Your task to perform on an android device: Open the calendar and show me this week's events? Image 0: 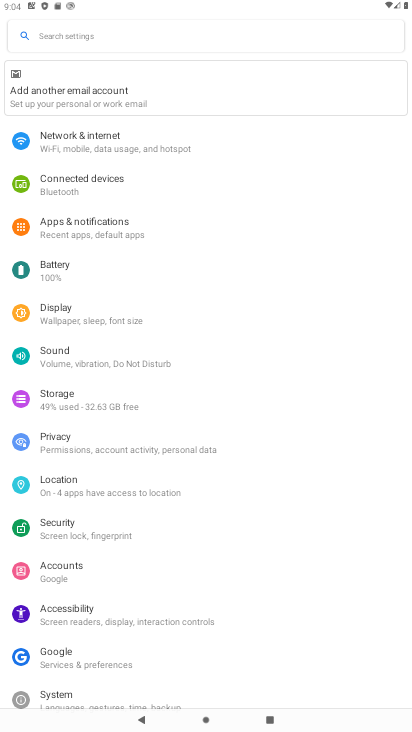
Step 0: drag from (157, 604) to (281, 214)
Your task to perform on an android device: Open the calendar and show me this week's events? Image 1: 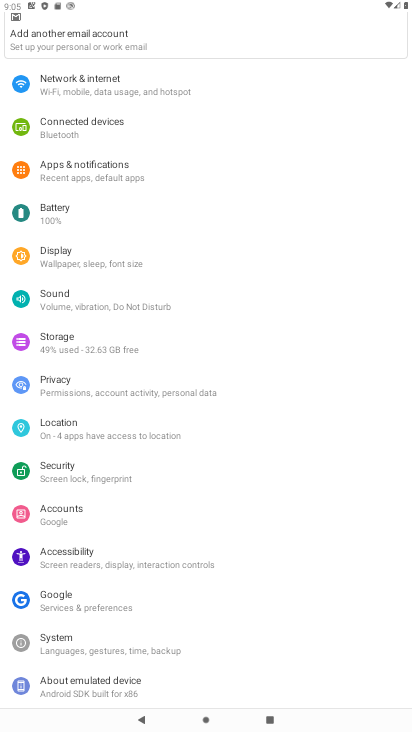
Step 1: press home button
Your task to perform on an android device: Open the calendar and show me this week's events? Image 2: 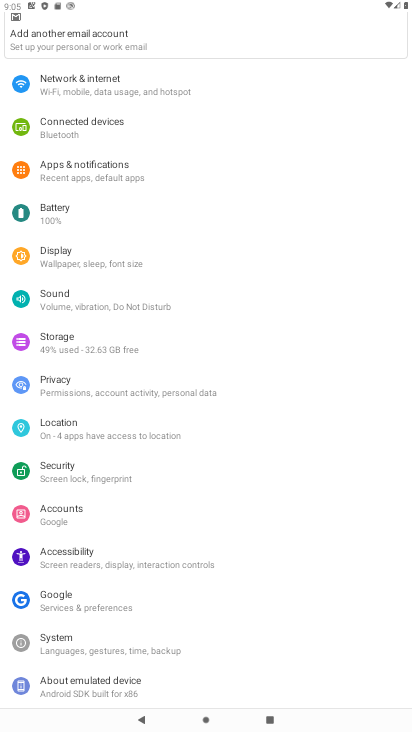
Step 2: press home button
Your task to perform on an android device: Open the calendar and show me this week's events? Image 3: 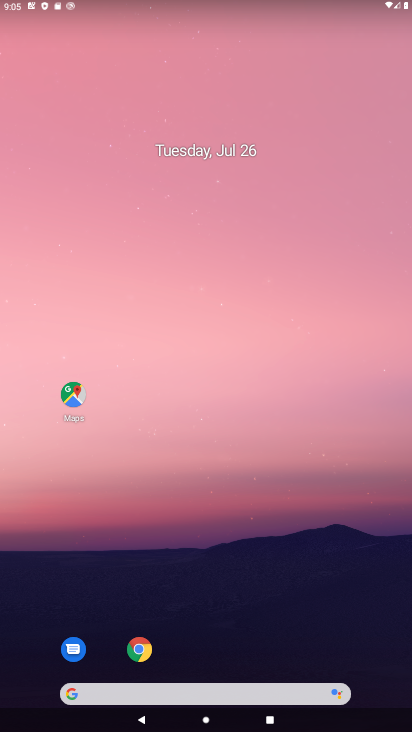
Step 3: drag from (200, 612) to (239, 185)
Your task to perform on an android device: Open the calendar and show me this week's events? Image 4: 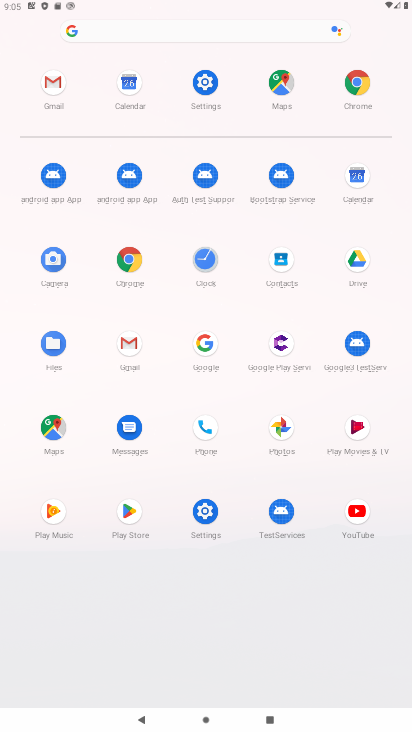
Step 4: click (361, 174)
Your task to perform on an android device: Open the calendar and show me this week's events? Image 5: 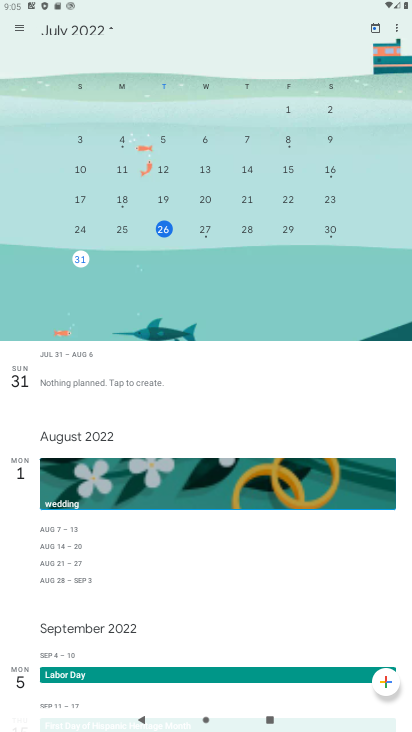
Step 5: click (375, 27)
Your task to perform on an android device: Open the calendar and show me this week's events? Image 6: 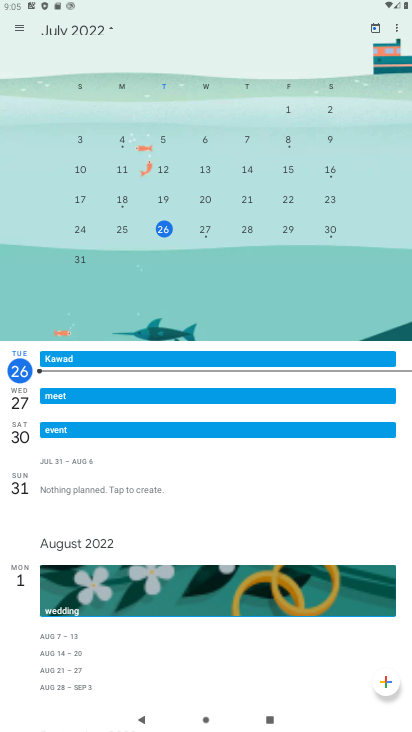
Step 6: click (326, 232)
Your task to perform on an android device: Open the calendar and show me this week's events? Image 7: 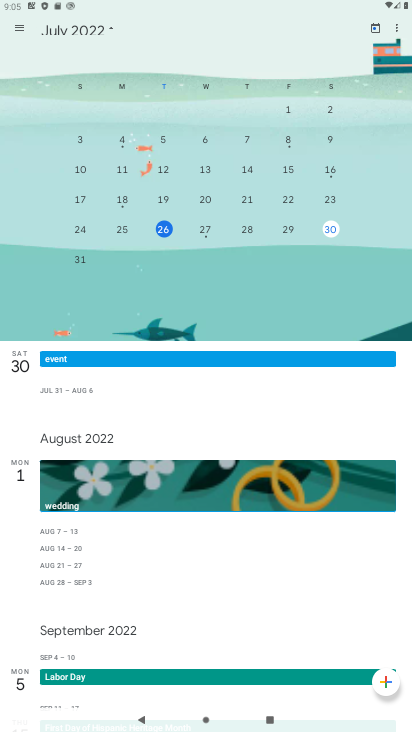
Step 7: task complete